Your task to perform on an android device: Go to sound settings Image 0: 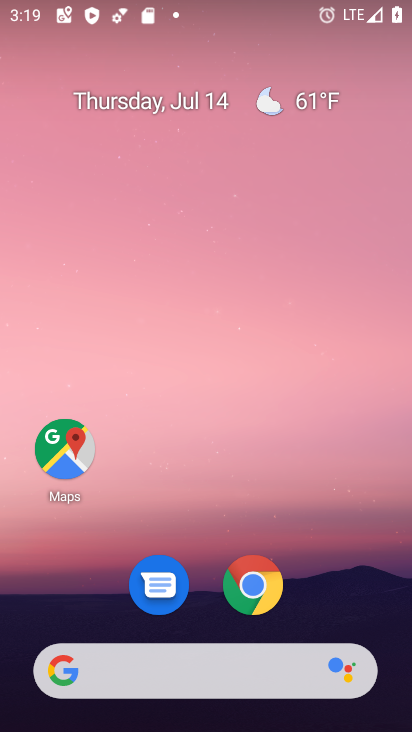
Step 0: drag from (331, 580) to (246, 13)
Your task to perform on an android device: Go to sound settings Image 1: 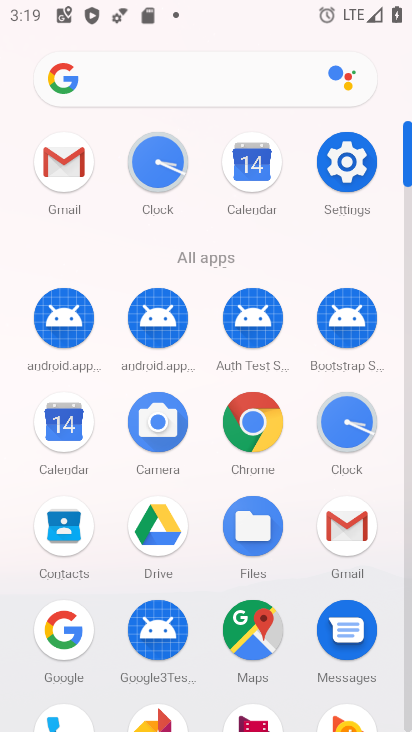
Step 1: click (346, 168)
Your task to perform on an android device: Go to sound settings Image 2: 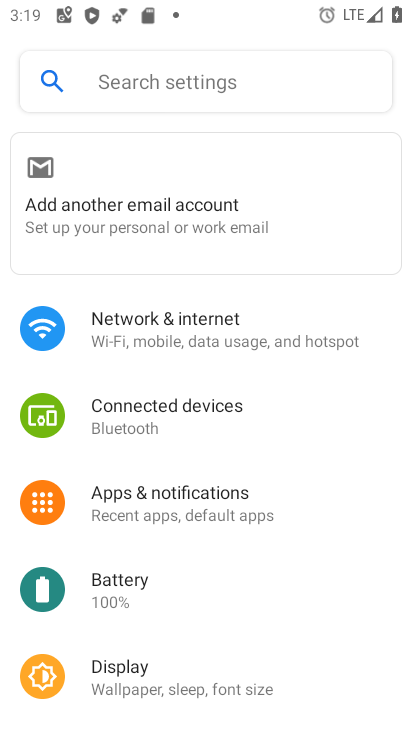
Step 2: drag from (196, 638) to (227, 204)
Your task to perform on an android device: Go to sound settings Image 3: 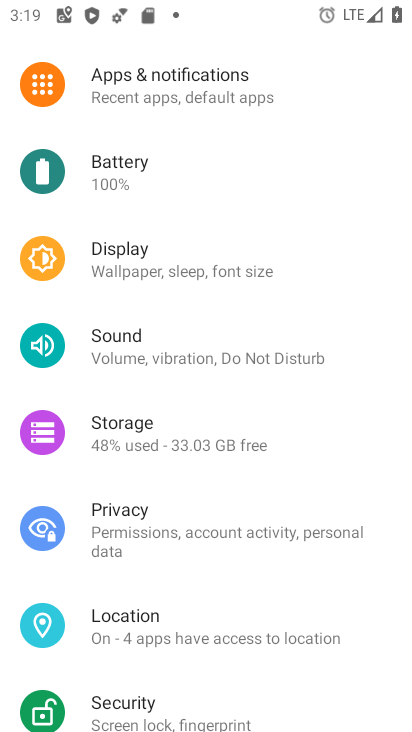
Step 3: click (198, 355)
Your task to perform on an android device: Go to sound settings Image 4: 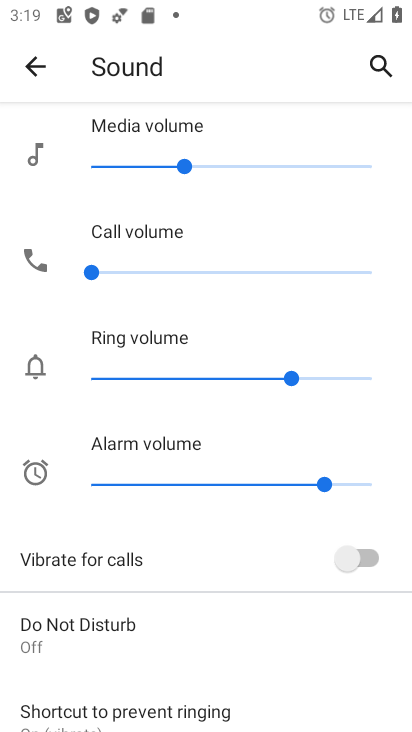
Step 4: task complete